Your task to perform on an android device: open chrome and create a bookmark for the current page Image 0: 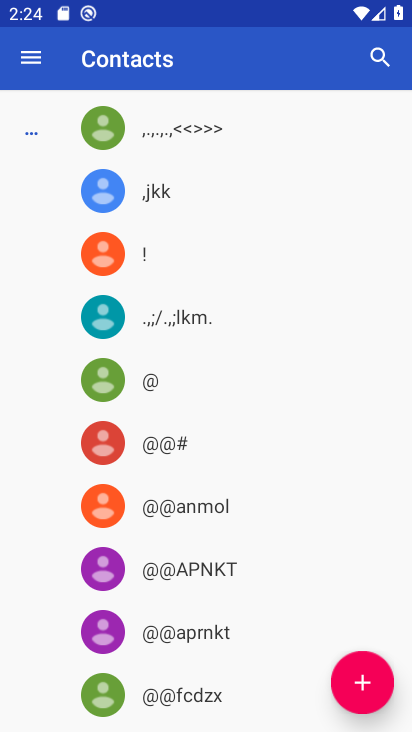
Step 0: press home button
Your task to perform on an android device: open chrome and create a bookmark for the current page Image 1: 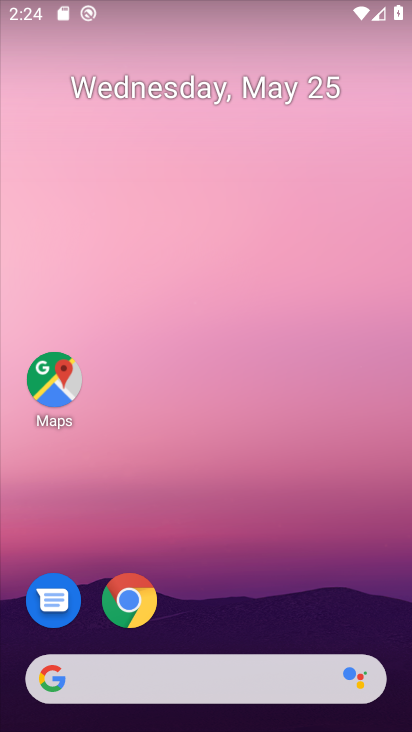
Step 1: click (131, 613)
Your task to perform on an android device: open chrome and create a bookmark for the current page Image 2: 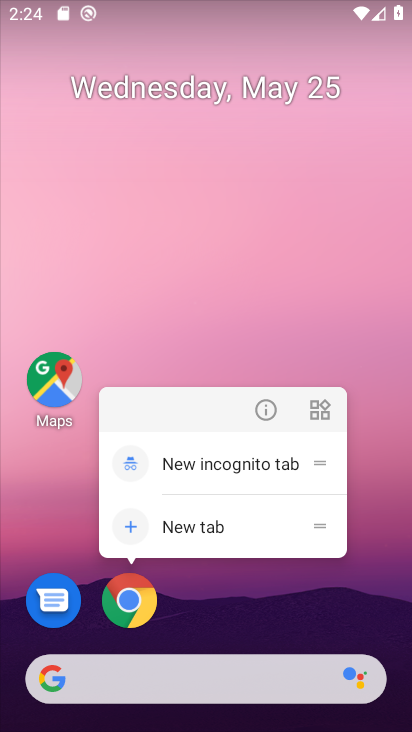
Step 2: click (133, 606)
Your task to perform on an android device: open chrome and create a bookmark for the current page Image 3: 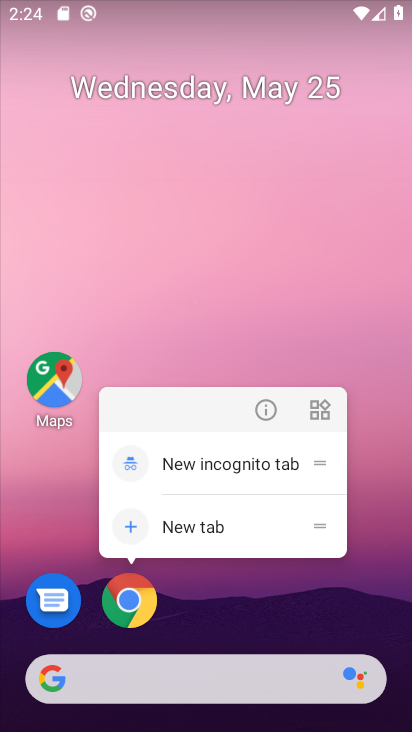
Step 3: click (133, 606)
Your task to perform on an android device: open chrome and create a bookmark for the current page Image 4: 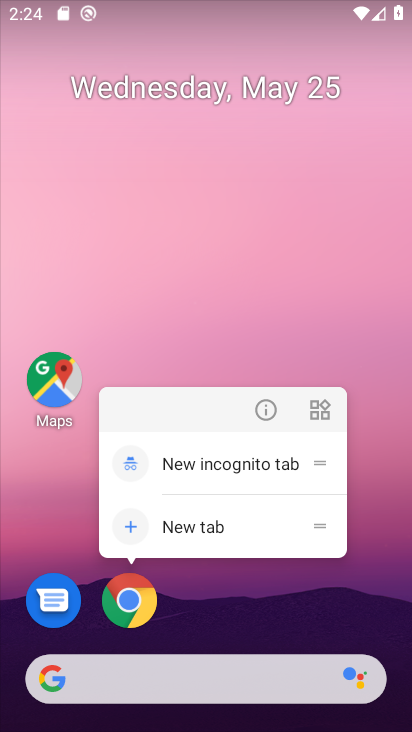
Step 4: click (128, 605)
Your task to perform on an android device: open chrome and create a bookmark for the current page Image 5: 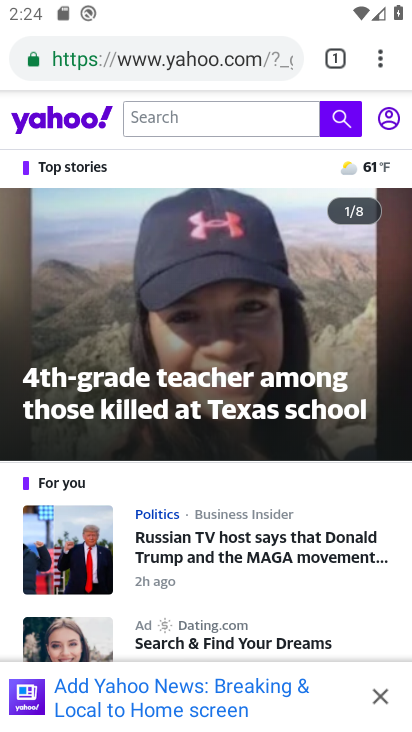
Step 5: drag from (404, 65) to (216, 66)
Your task to perform on an android device: open chrome and create a bookmark for the current page Image 6: 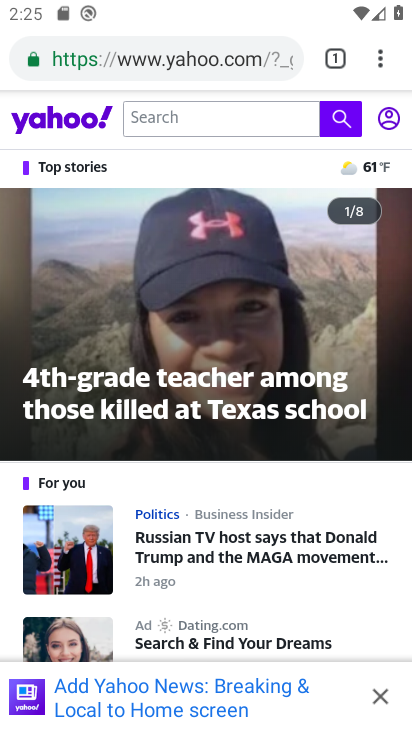
Step 6: click (401, 59)
Your task to perform on an android device: open chrome and create a bookmark for the current page Image 7: 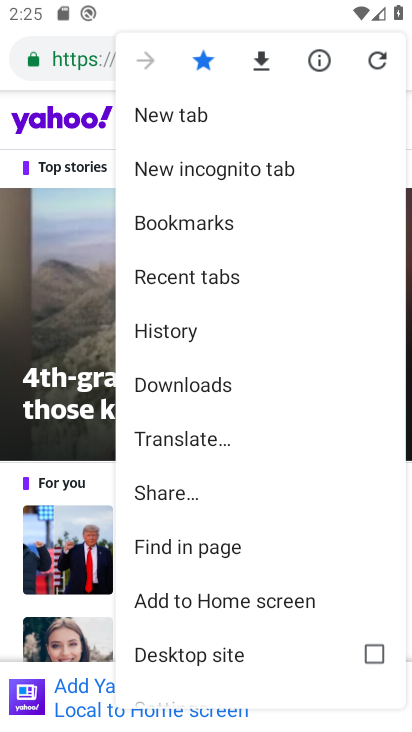
Step 7: task complete